Your task to perform on an android device: Go to Maps Image 0: 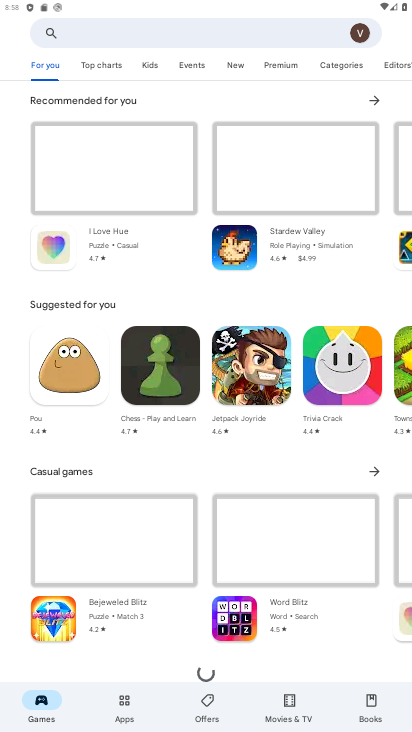
Step 0: press home button
Your task to perform on an android device: Go to Maps Image 1: 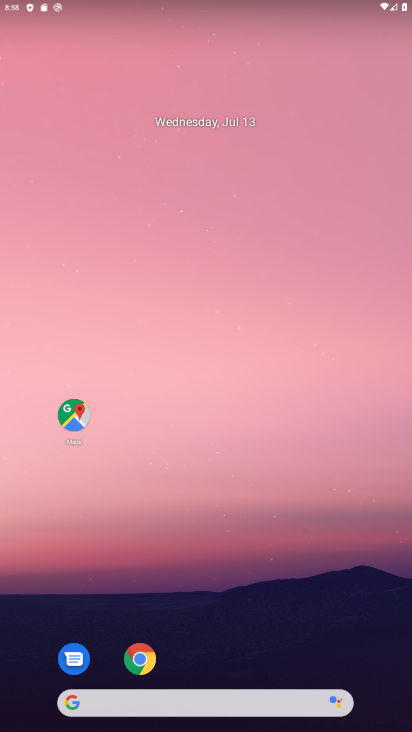
Step 1: click (76, 415)
Your task to perform on an android device: Go to Maps Image 2: 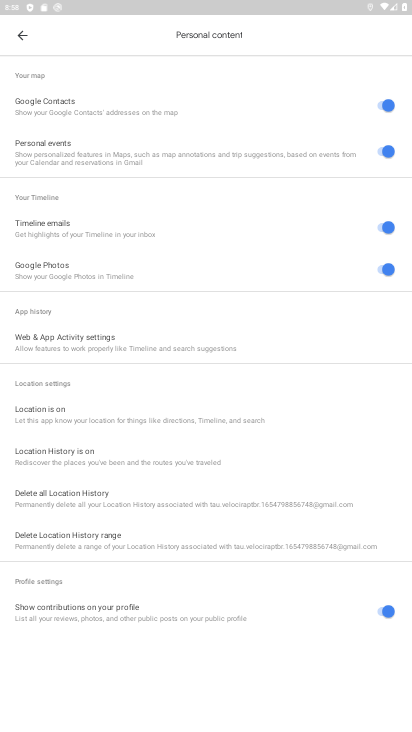
Step 2: task complete